Your task to perform on an android device: delete browsing data in the chrome app Image 0: 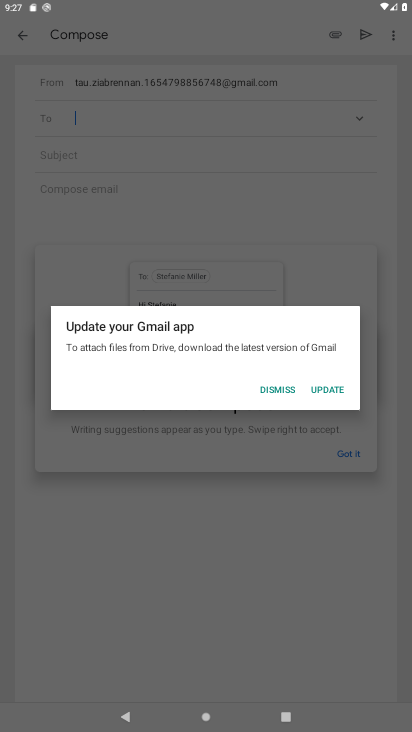
Step 0: press home button
Your task to perform on an android device: delete browsing data in the chrome app Image 1: 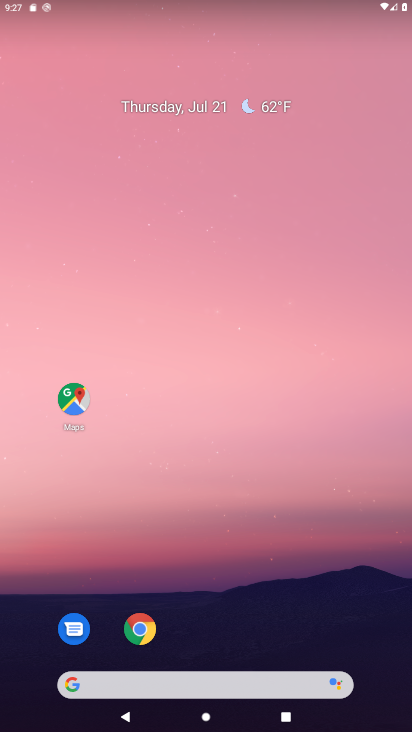
Step 1: drag from (202, 648) to (183, 330)
Your task to perform on an android device: delete browsing data in the chrome app Image 2: 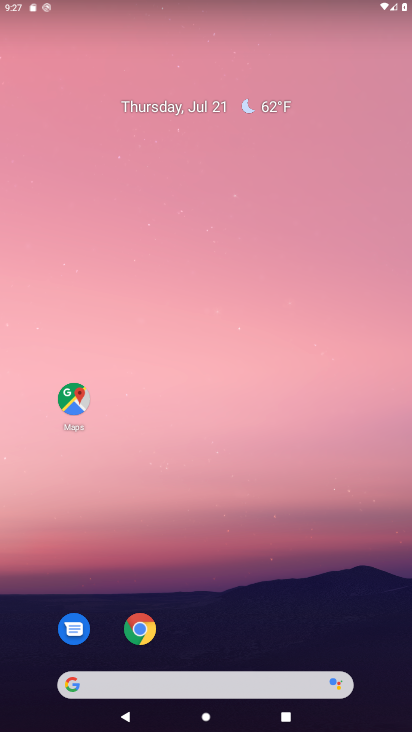
Step 2: click (141, 642)
Your task to perform on an android device: delete browsing data in the chrome app Image 3: 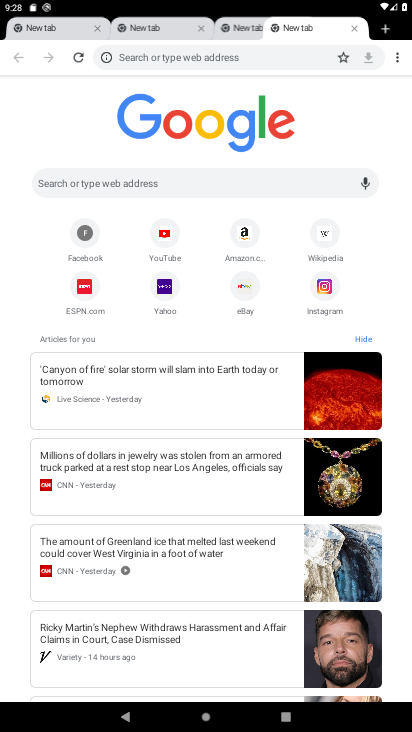
Step 3: click (407, 53)
Your task to perform on an android device: delete browsing data in the chrome app Image 4: 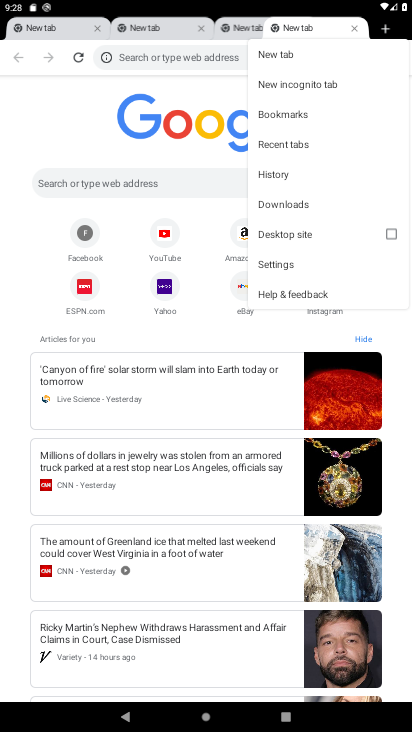
Step 4: click (288, 261)
Your task to perform on an android device: delete browsing data in the chrome app Image 5: 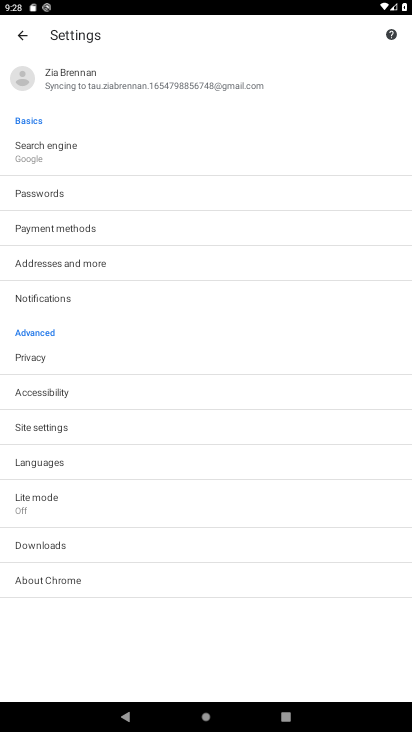
Step 5: click (85, 355)
Your task to perform on an android device: delete browsing data in the chrome app Image 6: 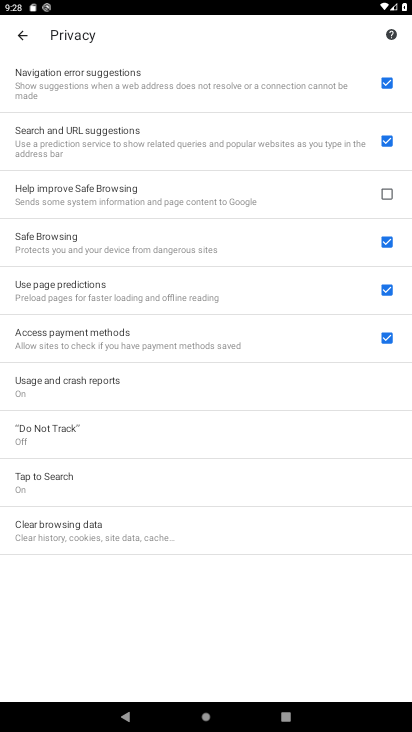
Step 6: click (138, 531)
Your task to perform on an android device: delete browsing data in the chrome app Image 7: 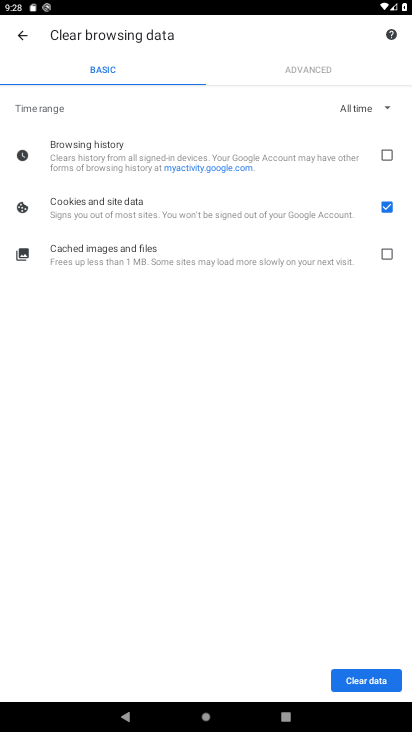
Step 7: click (352, 674)
Your task to perform on an android device: delete browsing data in the chrome app Image 8: 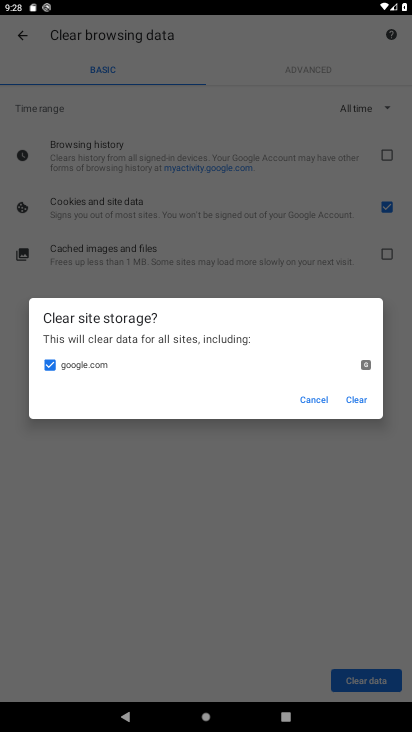
Step 8: click (346, 408)
Your task to perform on an android device: delete browsing data in the chrome app Image 9: 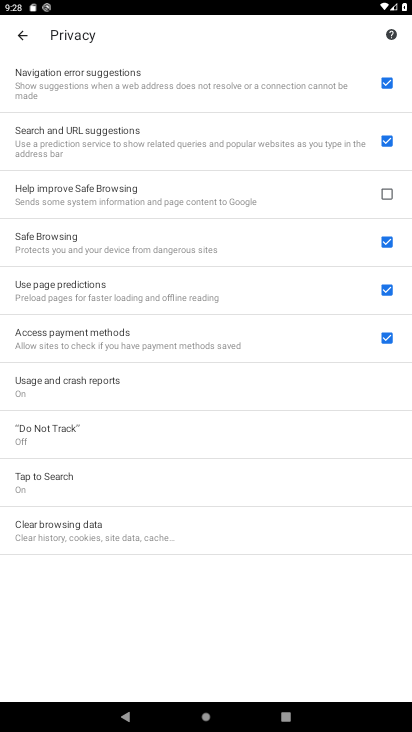
Step 9: task complete